Your task to perform on an android device: snooze an email in the gmail app Image 0: 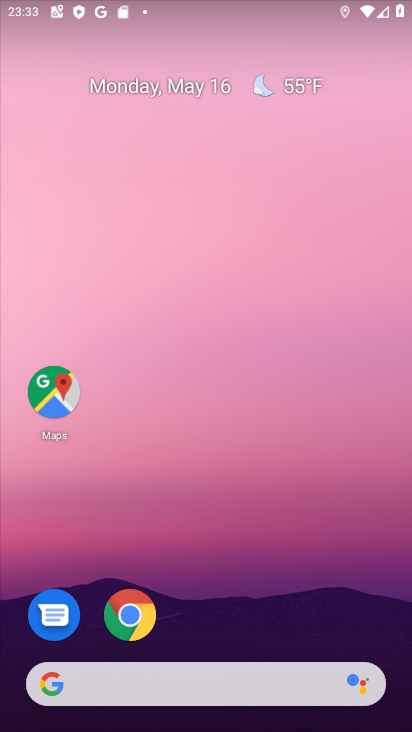
Step 0: drag from (212, 640) to (252, 24)
Your task to perform on an android device: snooze an email in the gmail app Image 1: 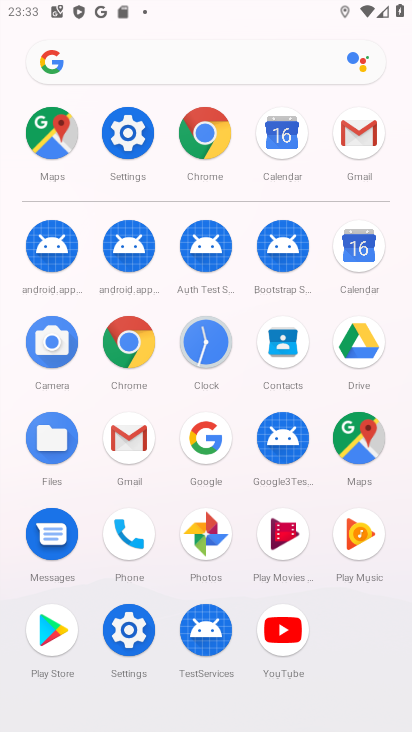
Step 1: click (128, 427)
Your task to perform on an android device: snooze an email in the gmail app Image 2: 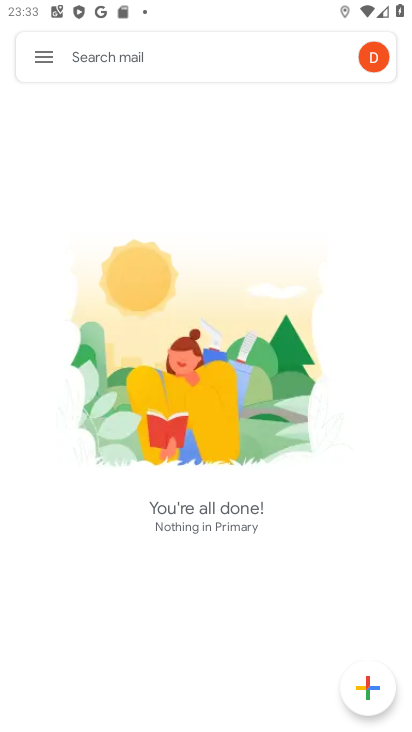
Step 2: click (36, 69)
Your task to perform on an android device: snooze an email in the gmail app Image 3: 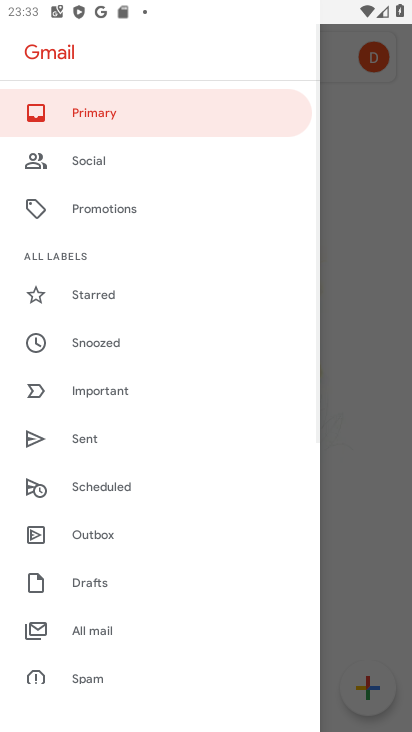
Step 3: click (119, 622)
Your task to perform on an android device: snooze an email in the gmail app Image 4: 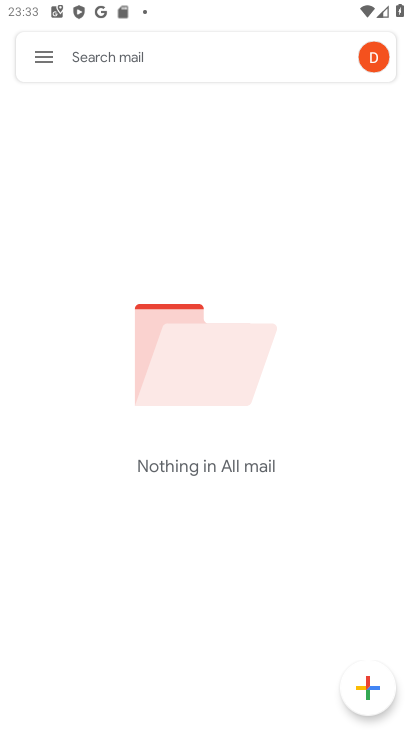
Step 4: task complete